Your task to perform on an android device: turn off location Image 0: 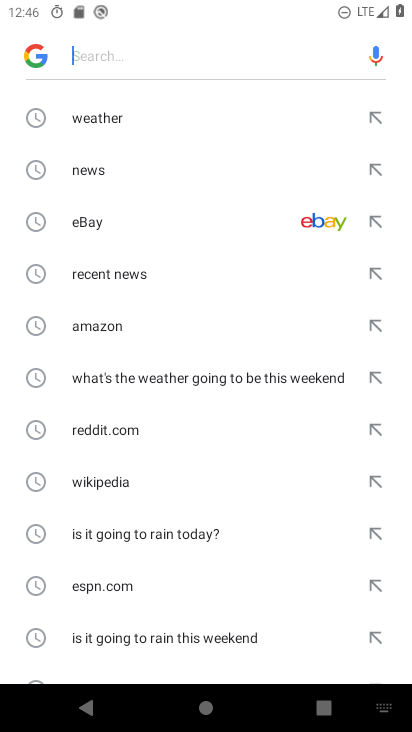
Step 0: press home button
Your task to perform on an android device: turn off location Image 1: 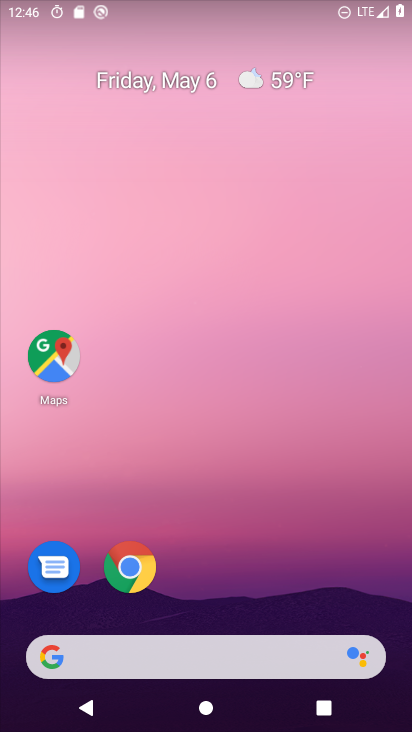
Step 1: drag from (305, 631) to (251, 28)
Your task to perform on an android device: turn off location Image 2: 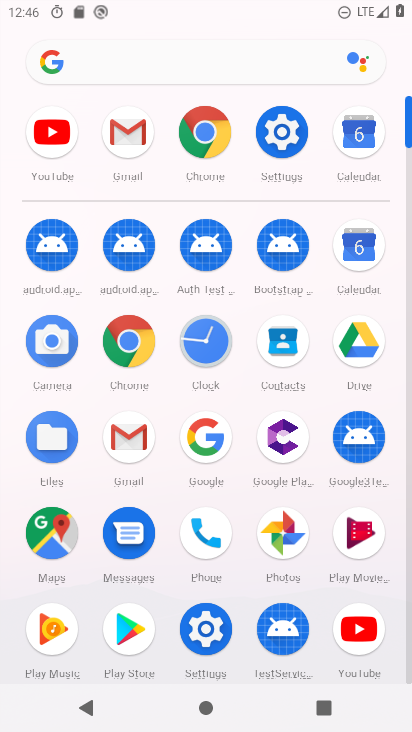
Step 2: click (276, 129)
Your task to perform on an android device: turn off location Image 3: 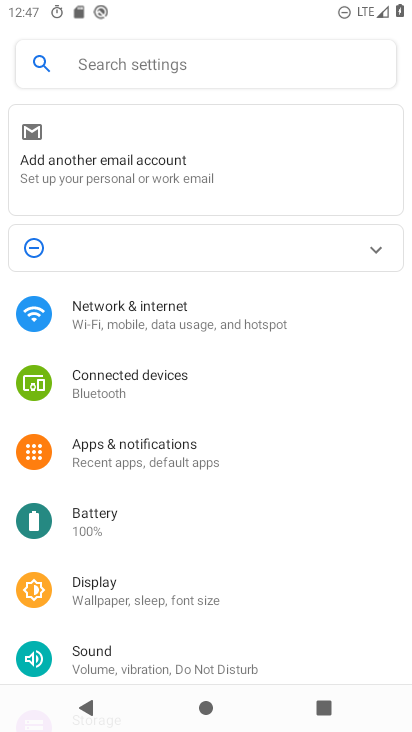
Step 3: drag from (279, 531) to (281, 167)
Your task to perform on an android device: turn off location Image 4: 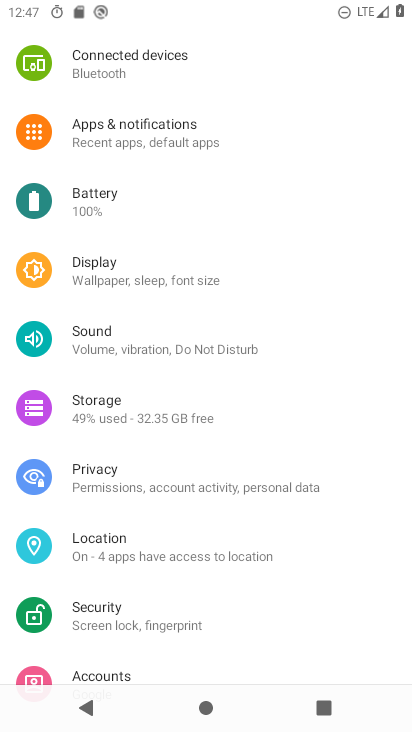
Step 4: click (103, 549)
Your task to perform on an android device: turn off location Image 5: 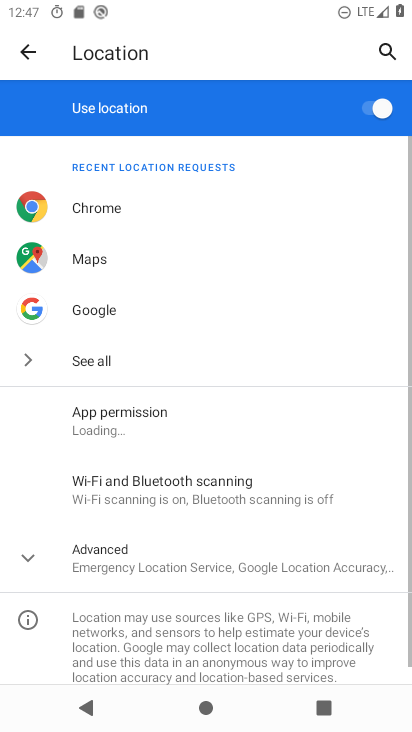
Step 5: click (375, 112)
Your task to perform on an android device: turn off location Image 6: 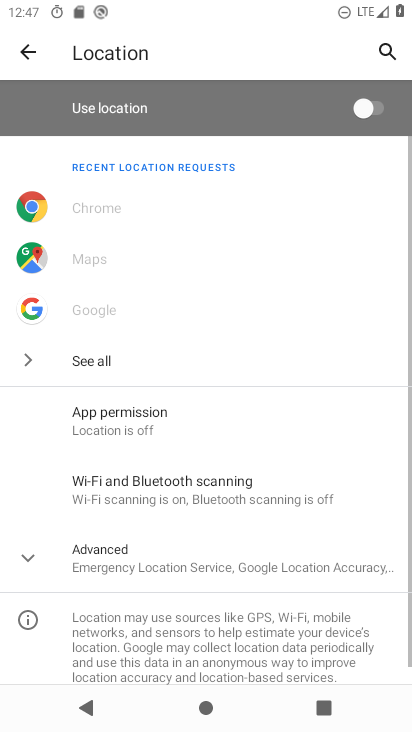
Step 6: task complete